Your task to perform on an android device: toggle wifi Image 0: 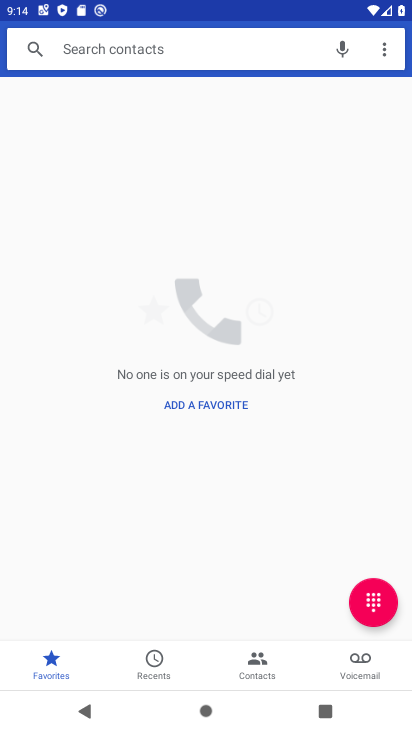
Step 0: press home button
Your task to perform on an android device: toggle wifi Image 1: 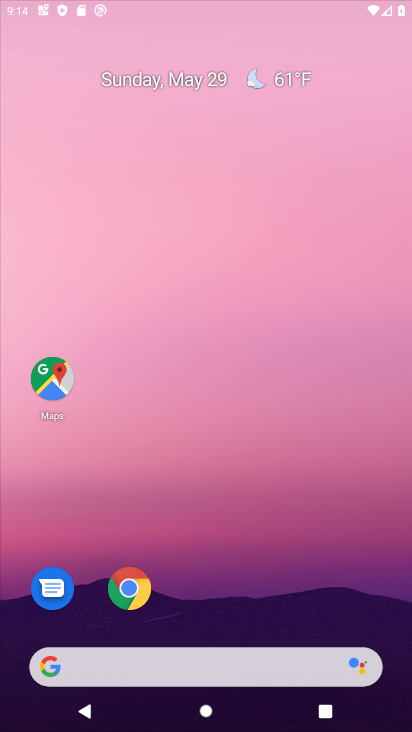
Step 1: drag from (75, 383) to (199, 25)
Your task to perform on an android device: toggle wifi Image 2: 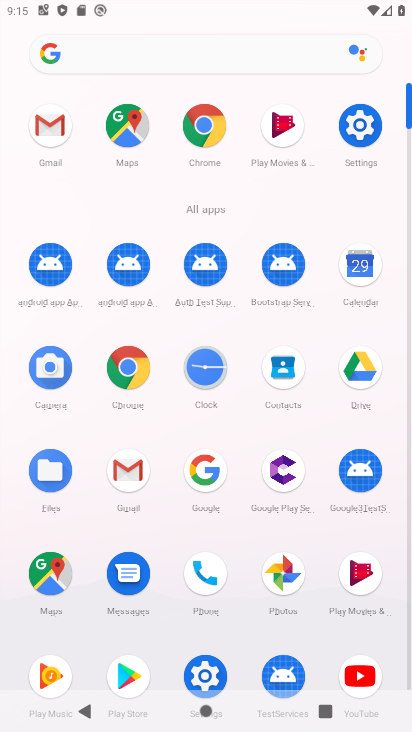
Step 2: click (372, 119)
Your task to perform on an android device: toggle wifi Image 3: 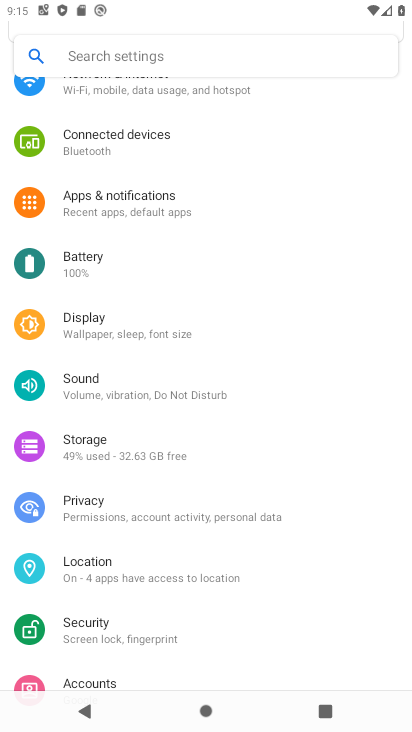
Step 3: click (151, 95)
Your task to perform on an android device: toggle wifi Image 4: 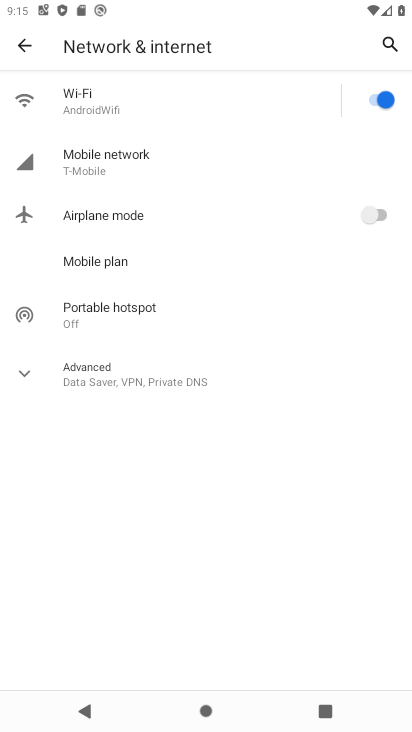
Step 4: click (372, 96)
Your task to perform on an android device: toggle wifi Image 5: 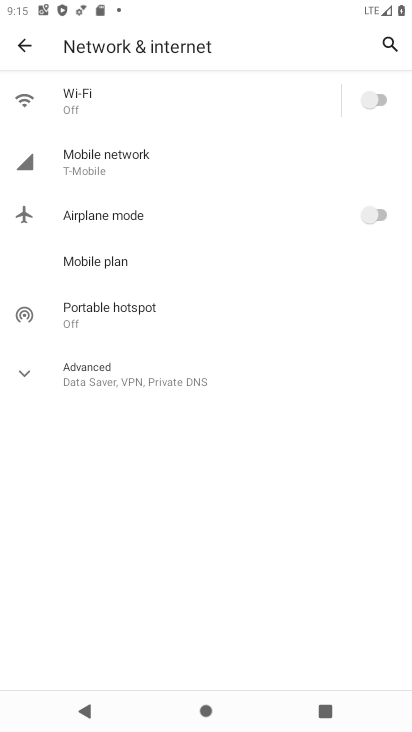
Step 5: task complete